Your task to perform on an android device: change the upload size in google photos Image 0: 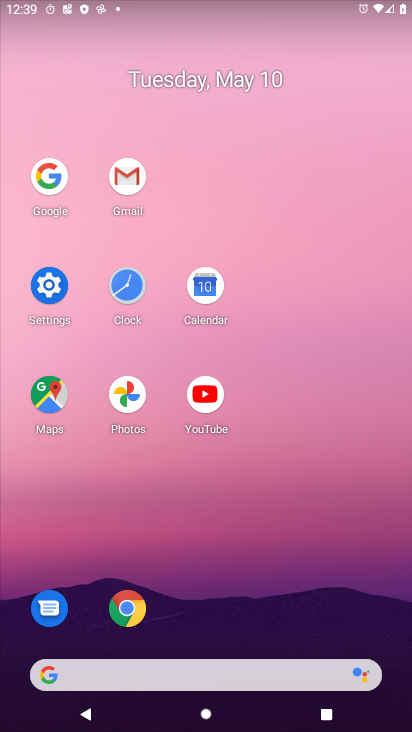
Step 0: click (141, 392)
Your task to perform on an android device: change the upload size in google photos Image 1: 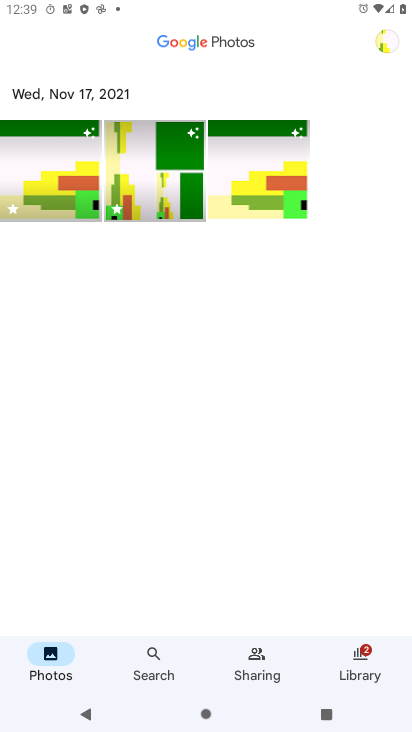
Step 1: click (390, 42)
Your task to perform on an android device: change the upload size in google photos Image 2: 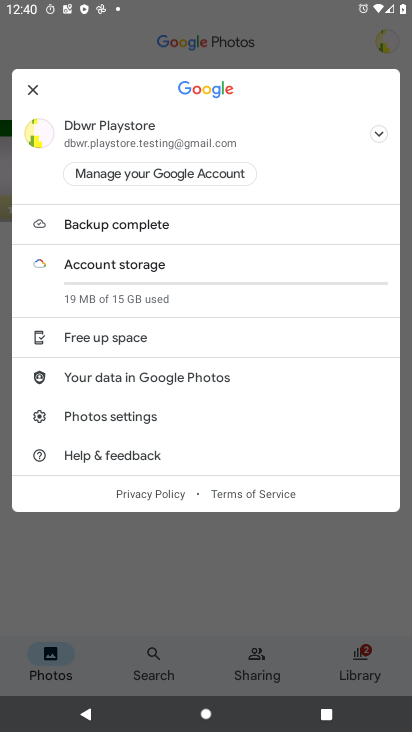
Step 2: click (163, 417)
Your task to perform on an android device: change the upload size in google photos Image 3: 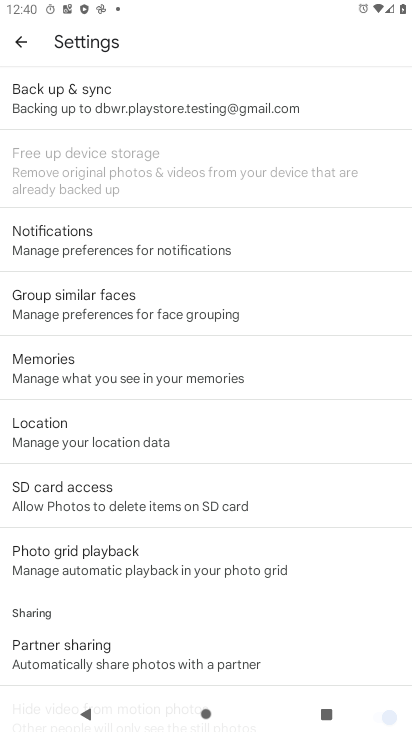
Step 3: click (187, 94)
Your task to perform on an android device: change the upload size in google photos Image 4: 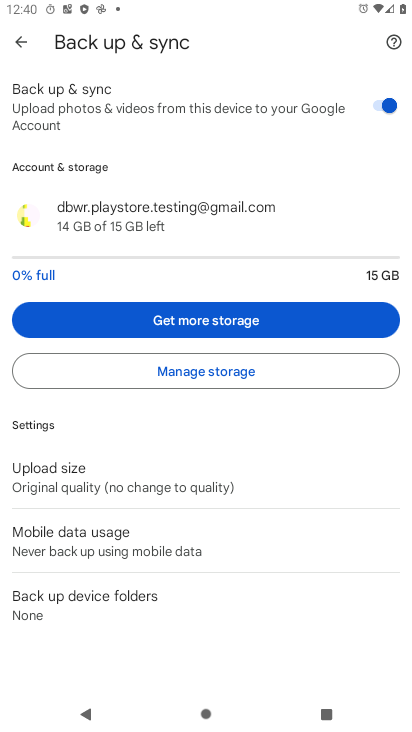
Step 4: click (215, 487)
Your task to perform on an android device: change the upload size in google photos Image 5: 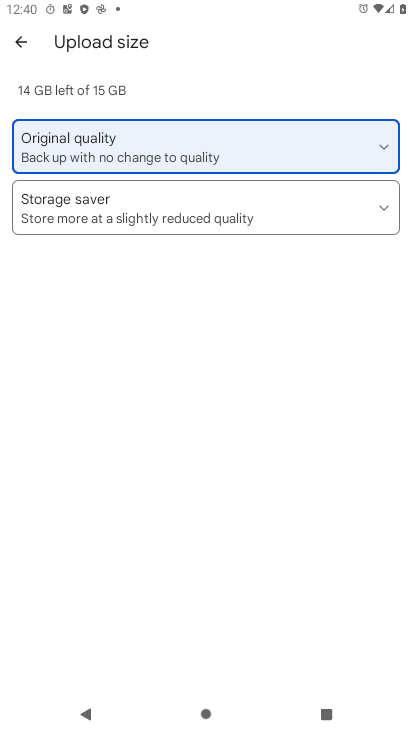
Step 5: click (226, 214)
Your task to perform on an android device: change the upload size in google photos Image 6: 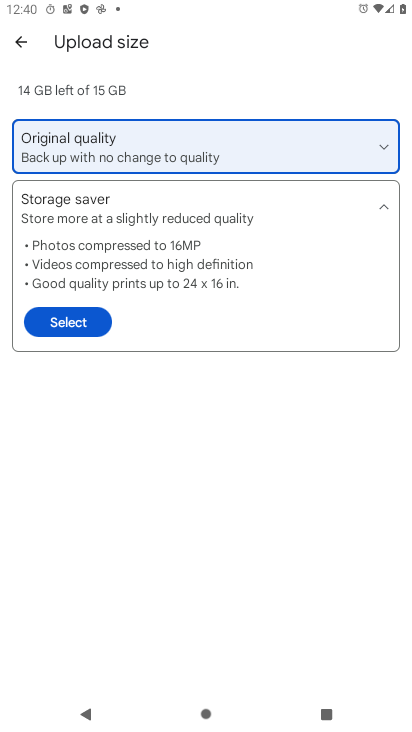
Step 6: click (105, 321)
Your task to perform on an android device: change the upload size in google photos Image 7: 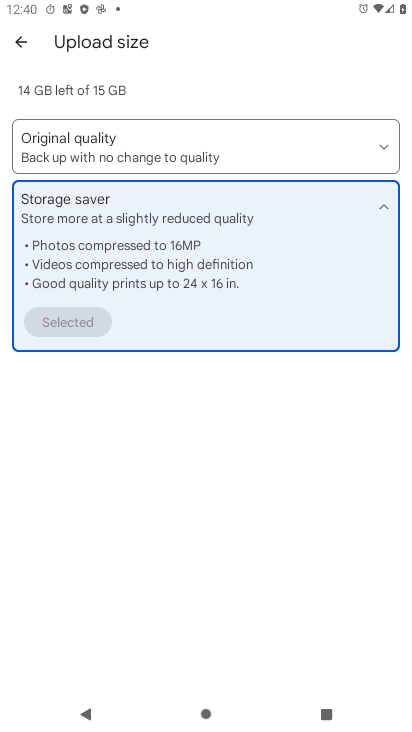
Step 7: task complete